Your task to perform on an android device: check the backup settings in the google photos Image 0: 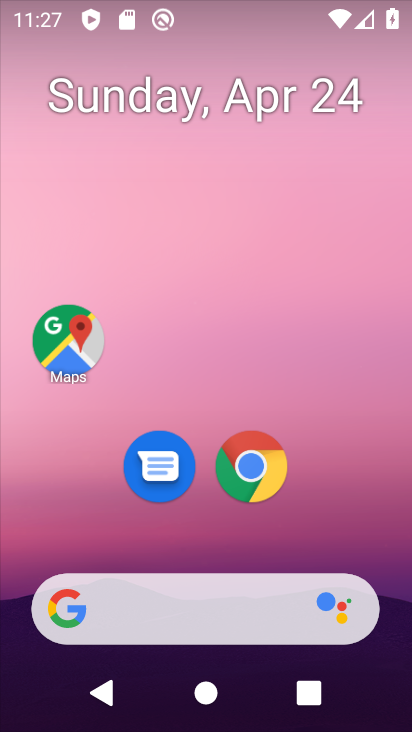
Step 0: drag from (285, 551) to (334, 129)
Your task to perform on an android device: check the backup settings in the google photos Image 1: 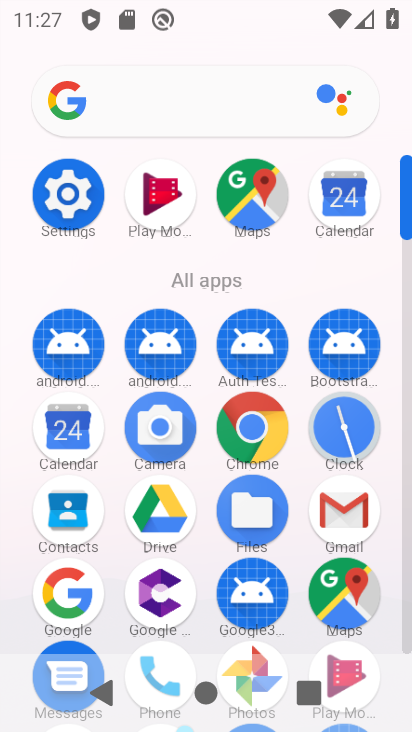
Step 1: drag from (227, 537) to (281, 216)
Your task to perform on an android device: check the backup settings in the google photos Image 2: 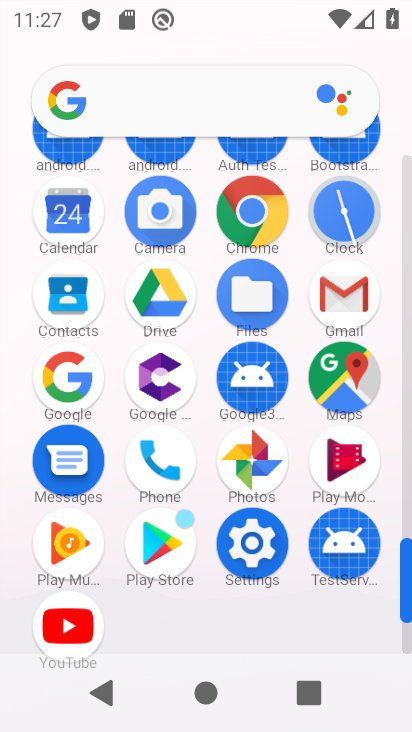
Step 2: click (237, 450)
Your task to perform on an android device: check the backup settings in the google photos Image 3: 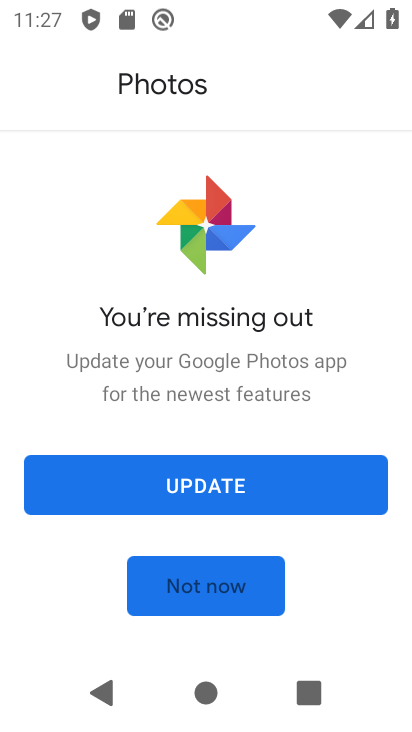
Step 3: click (253, 494)
Your task to perform on an android device: check the backup settings in the google photos Image 4: 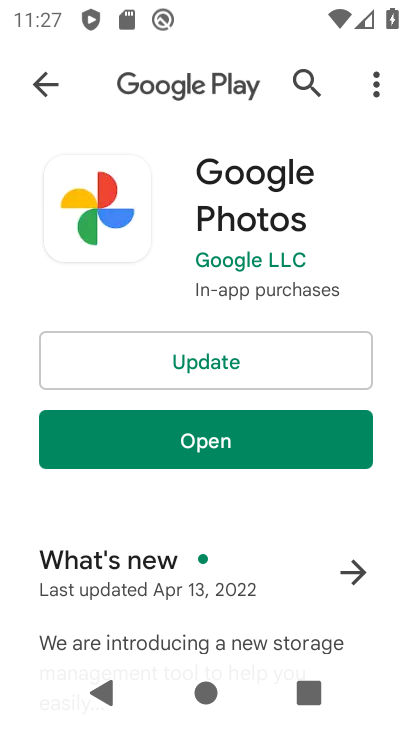
Step 4: click (293, 366)
Your task to perform on an android device: check the backup settings in the google photos Image 5: 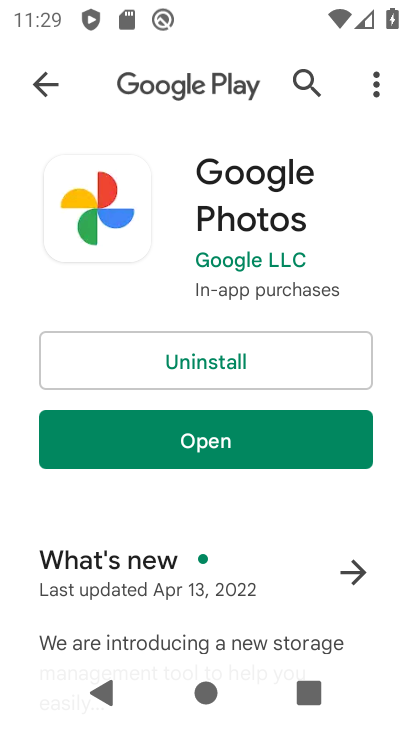
Step 5: click (235, 436)
Your task to perform on an android device: check the backup settings in the google photos Image 6: 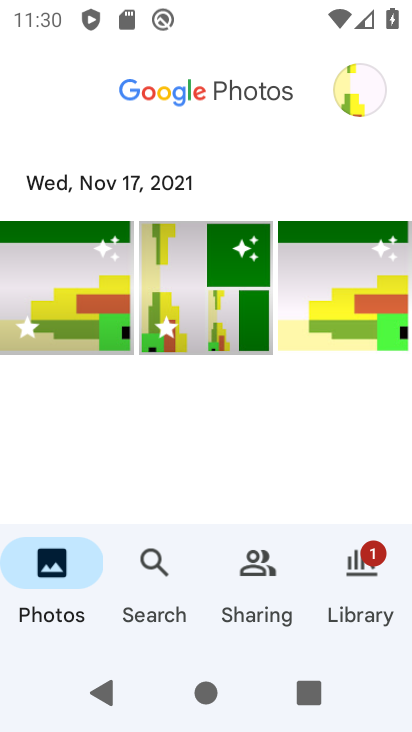
Step 6: click (344, 94)
Your task to perform on an android device: check the backup settings in the google photos Image 7: 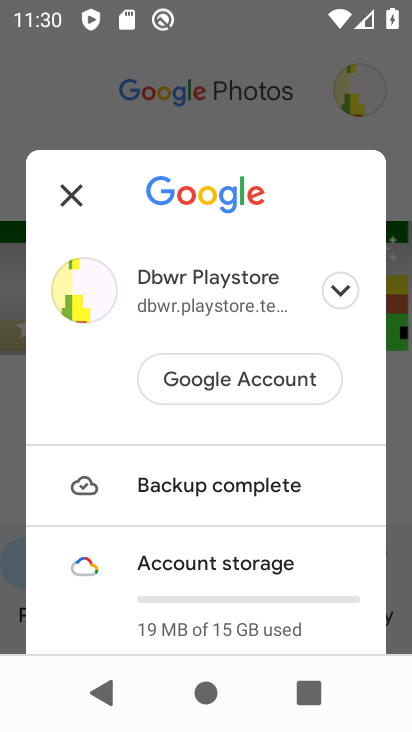
Step 7: drag from (168, 530) to (177, 163)
Your task to perform on an android device: check the backup settings in the google photos Image 8: 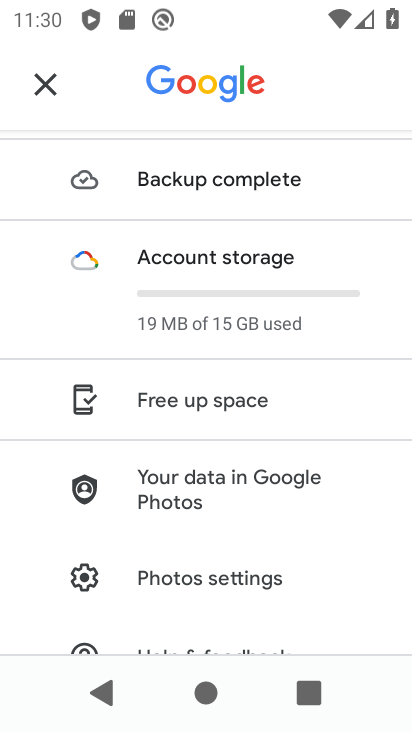
Step 8: drag from (217, 535) to (227, 224)
Your task to perform on an android device: check the backup settings in the google photos Image 9: 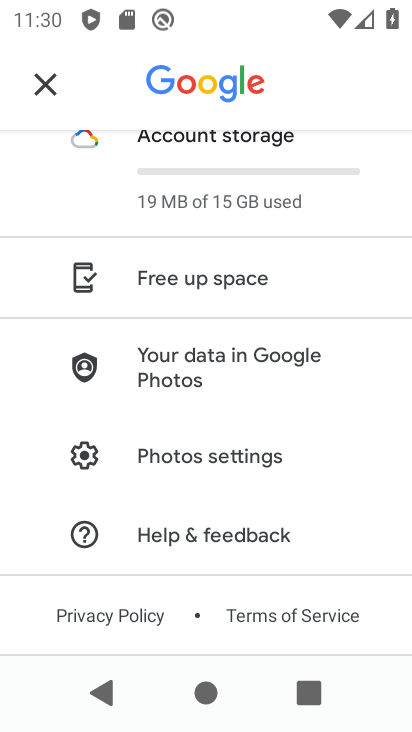
Step 9: click (290, 449)
Your task to perform on an android device: check the backup settings in the google photos Image 10: 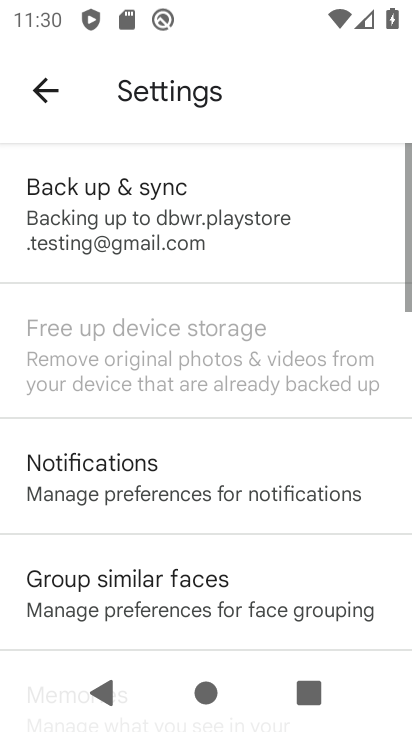
Step 10: click (261, 221)
Your task to perform on an android device: check the backup settings in the google photos Image 11: 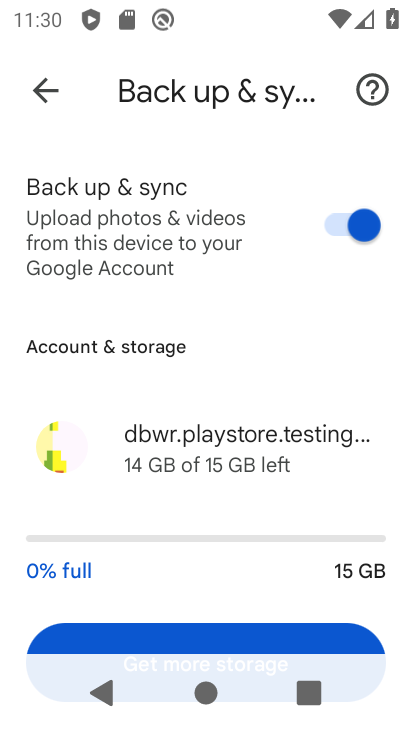
Step 11: task complete